Your task to perform on an android device: check the backup settings in the google photos Image 0: 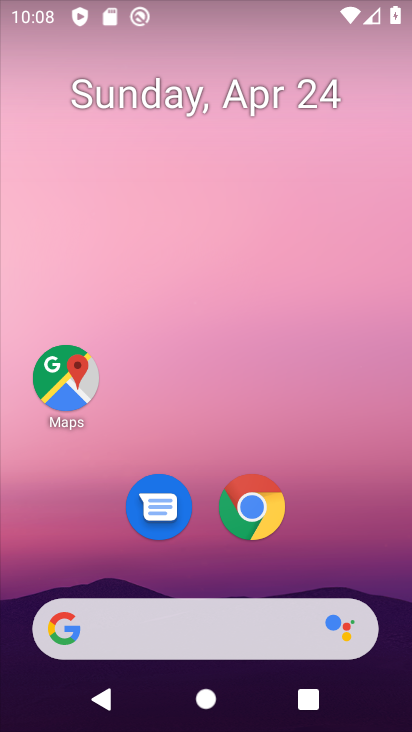
Step 0: drag from (357, 506) to (314, 40)
Your task to perform on an android device: check the backup settings in the google photos Image 1: 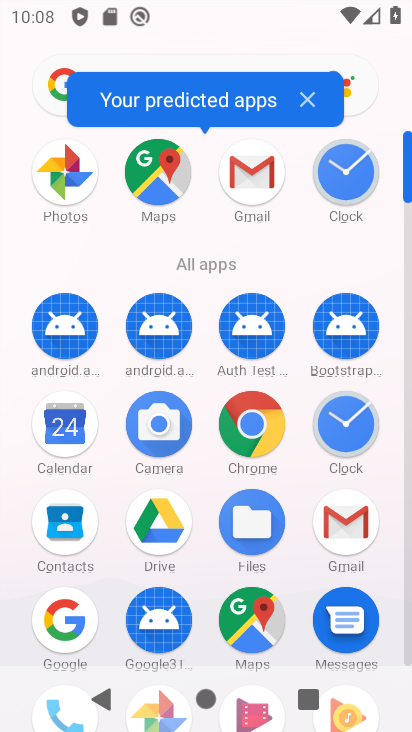
Step 1: click (408, 645)
Your task to perform on an android device: check the backup settings in the google photos Image 2: 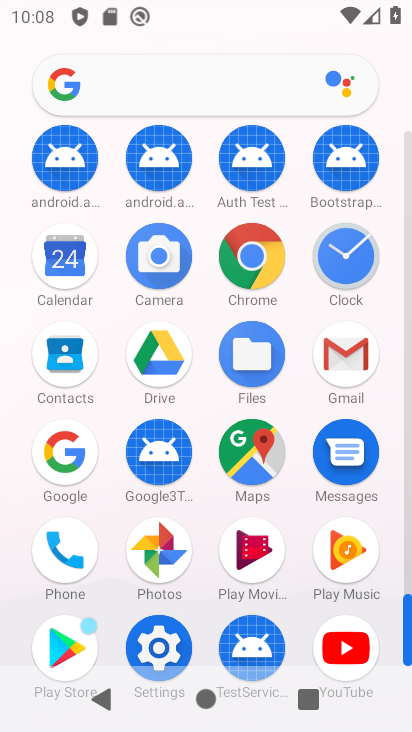
Step 2: click (150, 539)
Your task to perform on an android device: check the backup settings in the google photos Image 3: 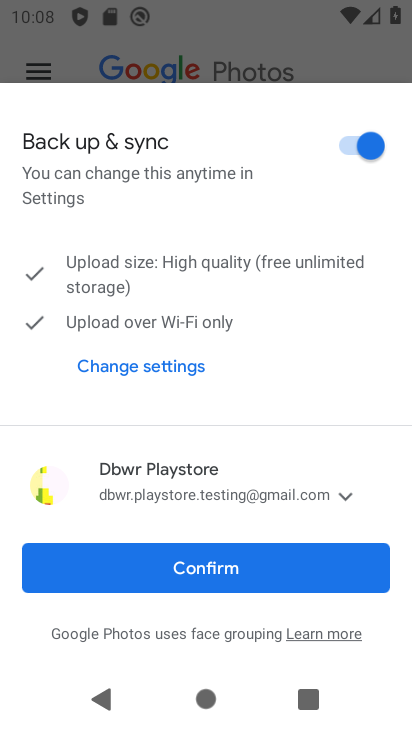
Step 3: click (188, 559)
Your task to perform on an android device: check the backup settings in the google photos Image 4: 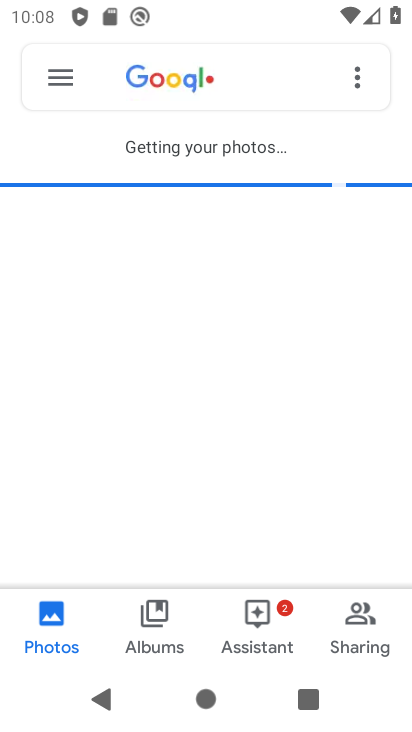
Step 4: click (57, 77)
Your task to perform on an android device: check the backup settings in the google photos Image 5: 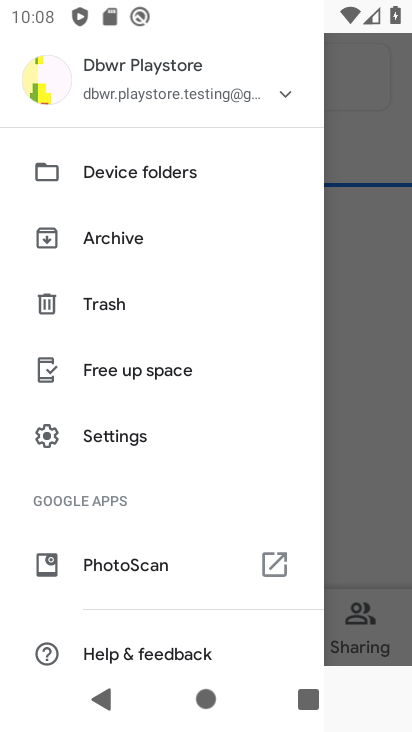
Step 5: click (273, 83)
Your task to perform on an android device: check the backup settings in the google photos Image 6: 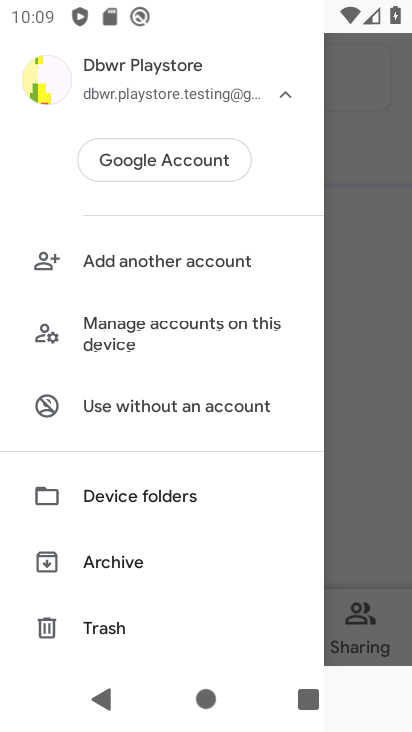
Step 6: drag from (120, 559) to (160, 184)
Your task to perform on an android device: check the backup settings in the google photos Image 7: 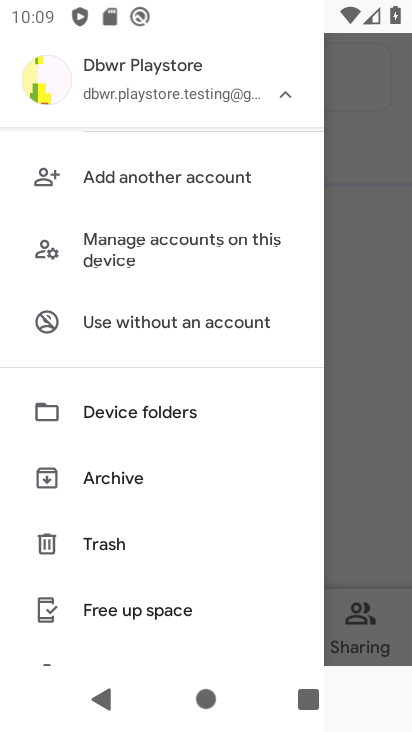
Step 7: drag from (125, 608) to (137, 243)
Your task to perform on an android device: check the backup settings in the google photos Image 8: 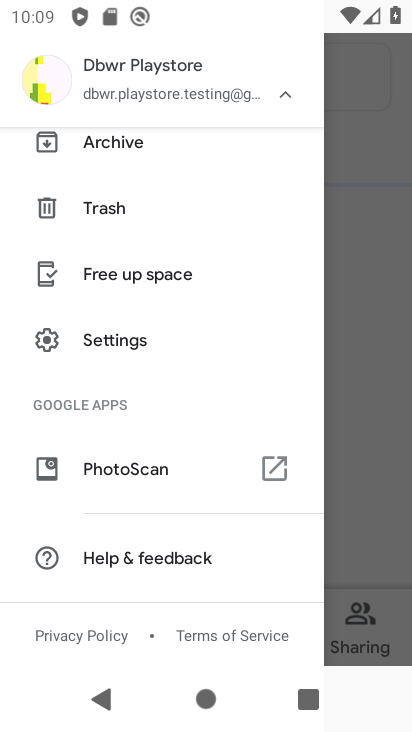
Step 8: click (105, 342)
Your task to perform on an android device: check the backup settings in the google photos Image 9: 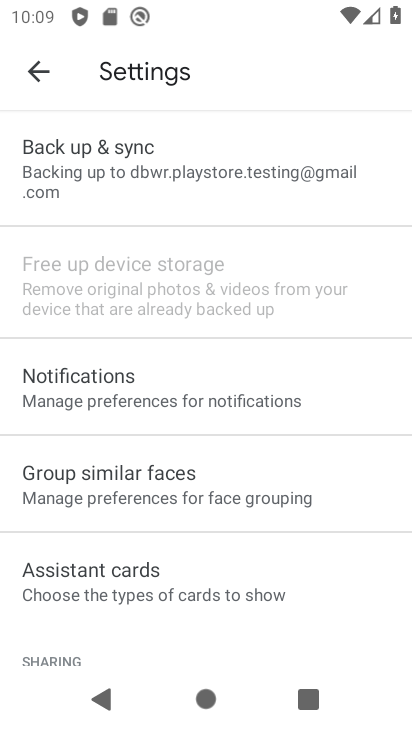
Step 9: click (106, 154)
Your task to perform on an android device: check the backup settings in the google photos Image 10: 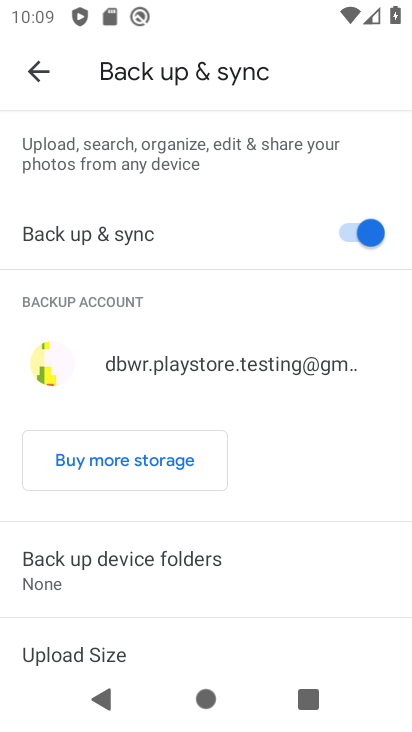
Step 10: task complete